Your task to perform on an android device: check data usage Image 0: 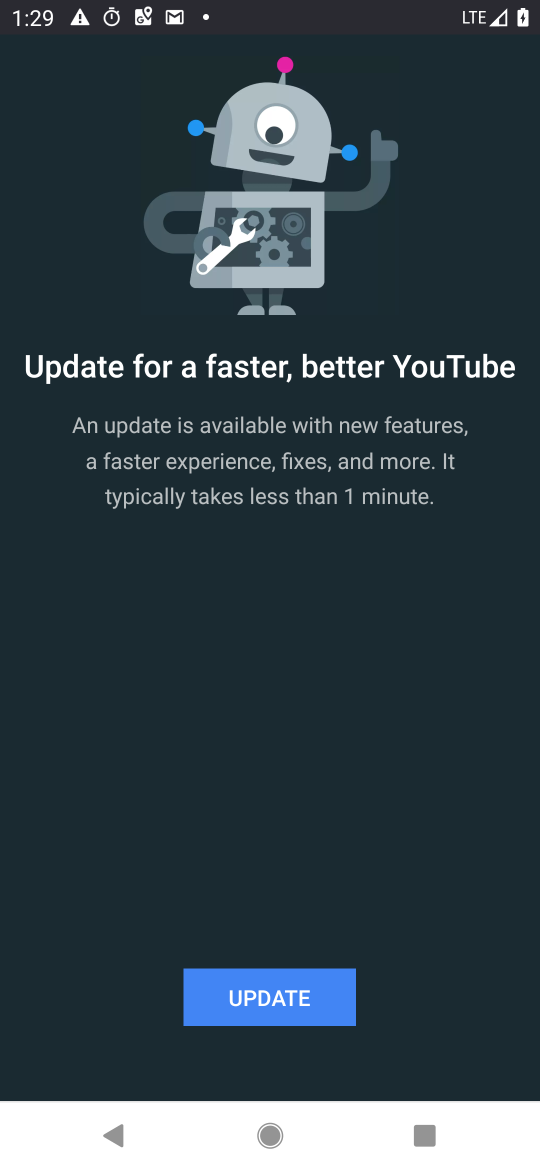
Step 0: drag from (328, 1077) to (271, 547)
Your task to perform on an android device: check data usage Image 1: 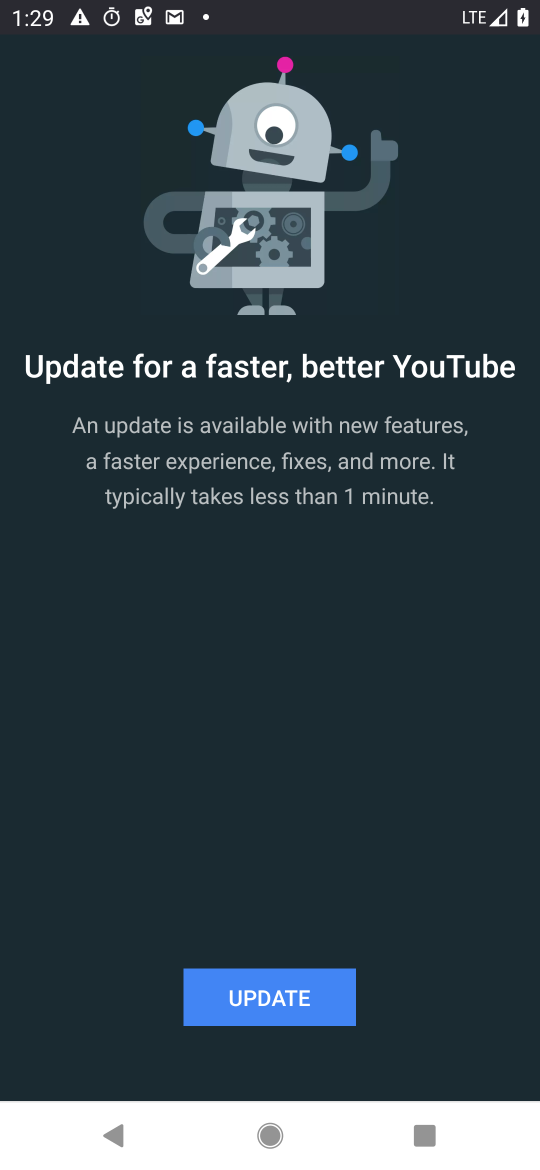
Step 1: press home button
Your task to perform on an android device: check data usage Image 2: 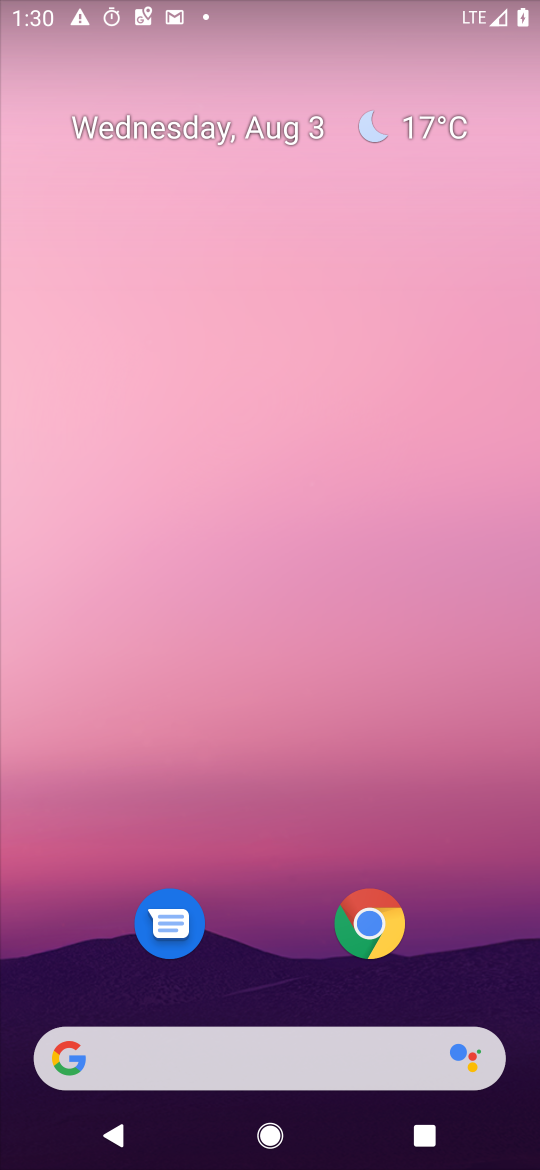
Step 2: drag from (262, 977) to (310, 212)
Your task to perform on an android device: check data usage Image 3: 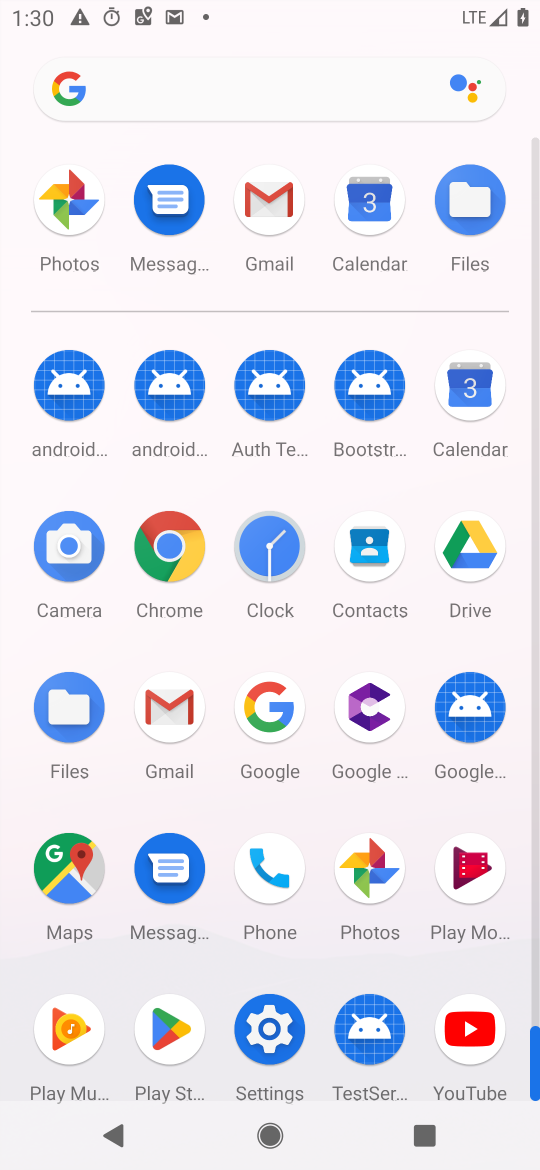
Step 3: click (255, 1022)
Your task to perform on an android device: check data usage Image 4: 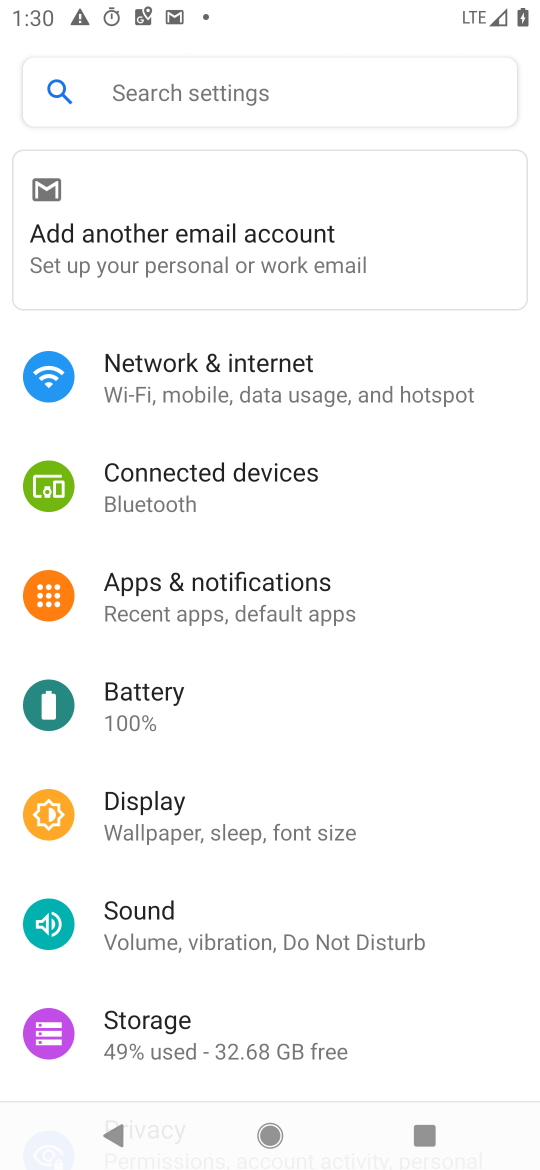
Step 4: click (260, 377)
Your task to perform on an android device: check data usage Image 5: 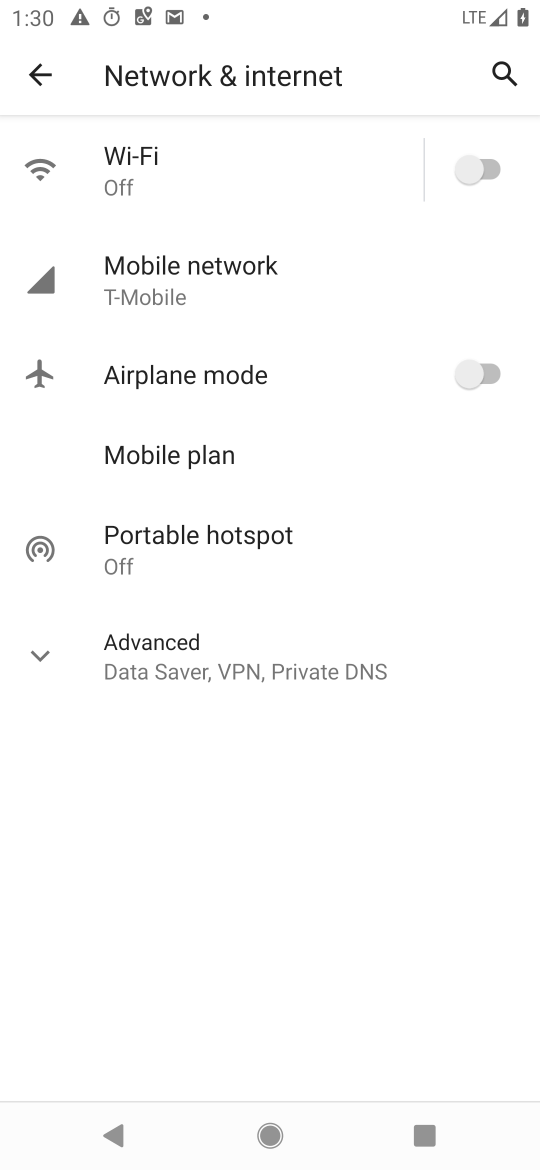
Step 5: click (208, 280)
Your task to perform on an android device: check data usage Image 6: 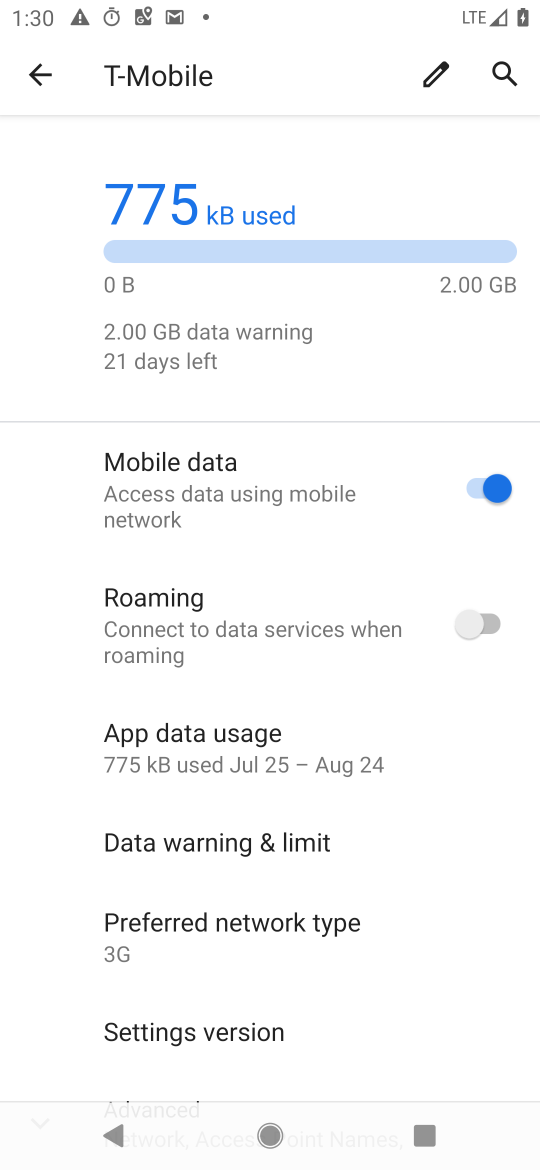
Step 6: task complete